Your task to perform on an android device: check out phone information Image 0: 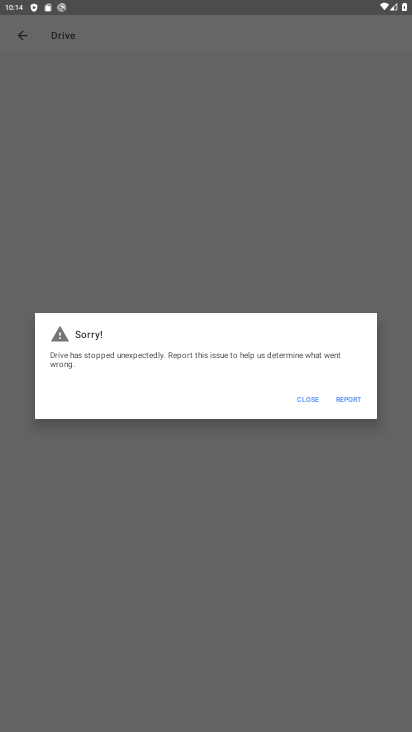
Step 0: press back button
Your task to perform on an android device: check out phone information Image 1: 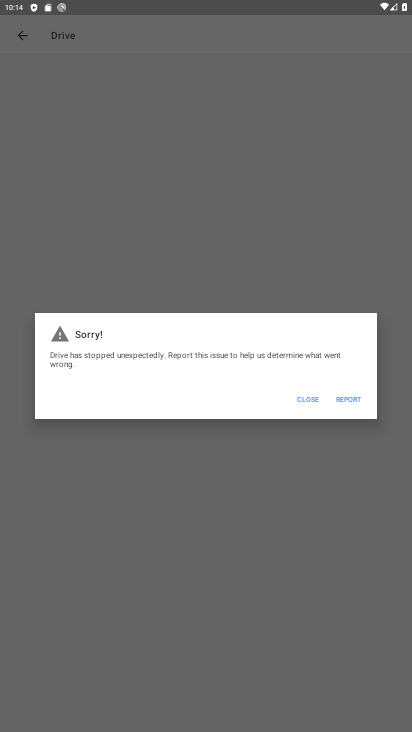
Step 1: press home button
Your task to perform on an android device: check out phone information Image 2: 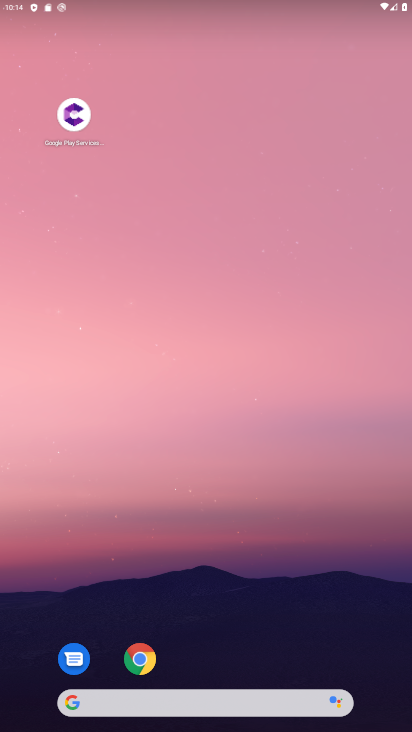
Step 2: drag from (191, 630) to (295, 17)
Your task to perform on an android device: check out phone information Image 3: 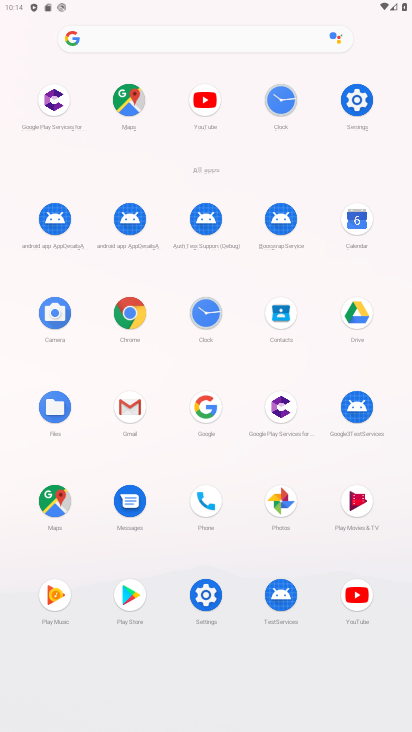
Step 3: click (332, 97)
Your task to perform on an android device: check out phone information Image 4: 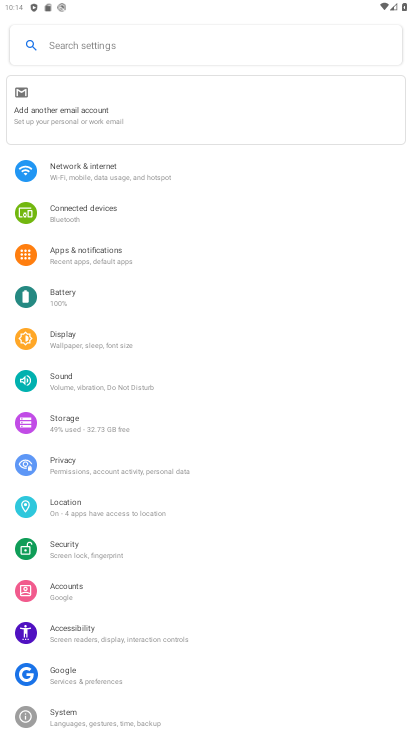
Step 4: drag from (146, 677) to (195, 49)
Your task to perform on an android device: check out phone information Image 5: 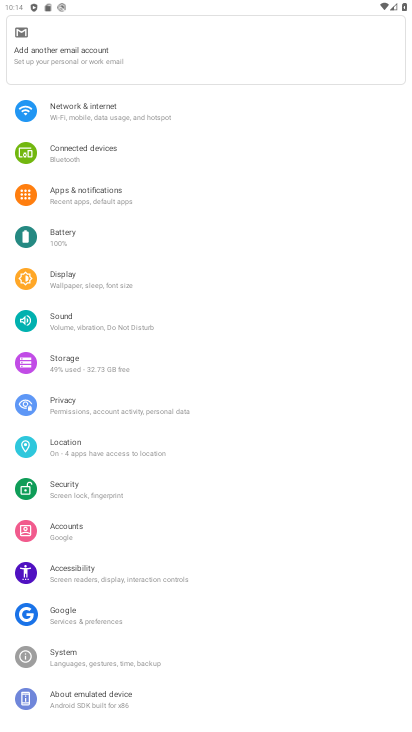
Step 5: click (94, 701)
Your task to perform on an android device: check out phone information Image 6: 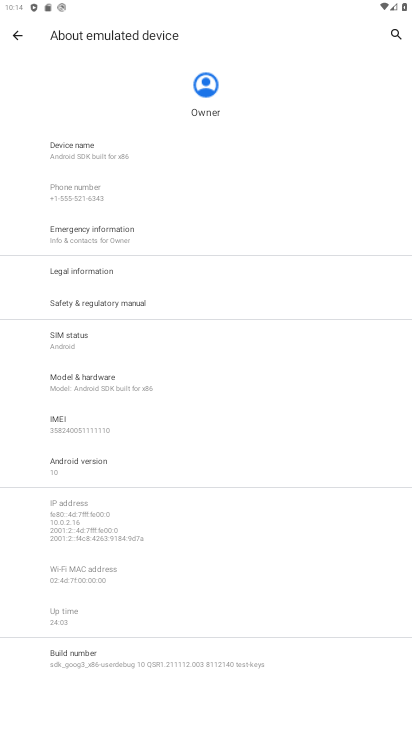
Step 6: task complete